Your task to perform on an android device: open device folders in google photos Image 0: 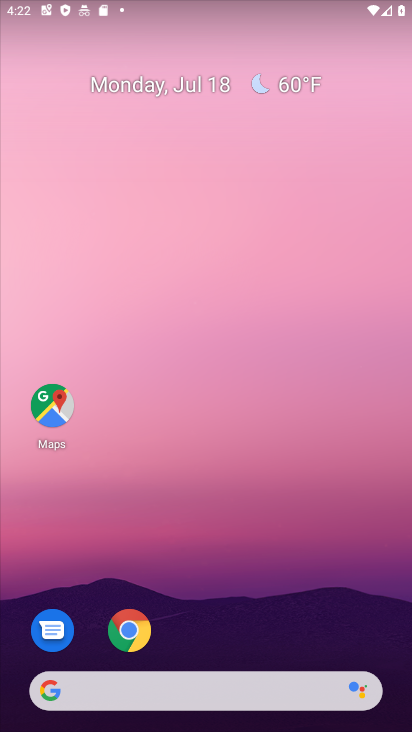
Step 0: drag from (217, 567) to (161, 194)
Your task to perform on an android device: open device folders in google photos Image 1: 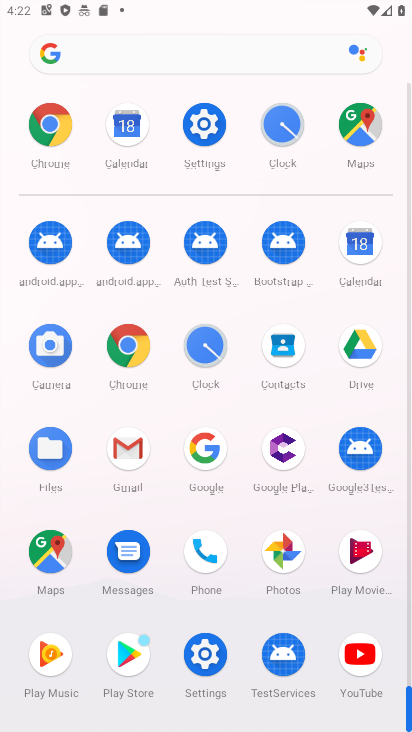
Step 1: click (197, 441)
Your task to perform on an android device: open device folders in google photos Image 2: 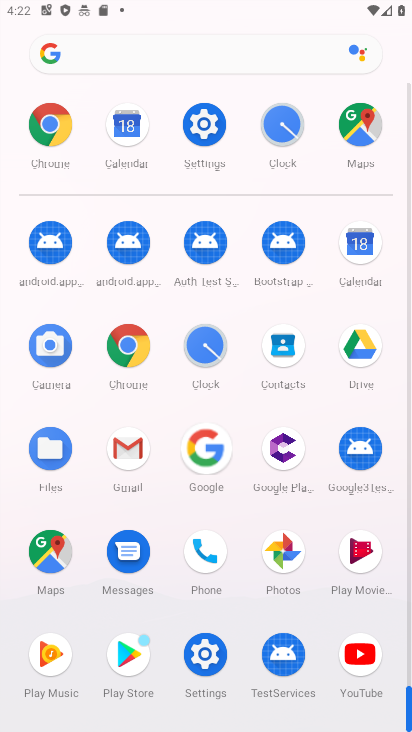
Step 2: click (197, 441)
Your task to perform on an android device: open device folders in google photos Image 3: 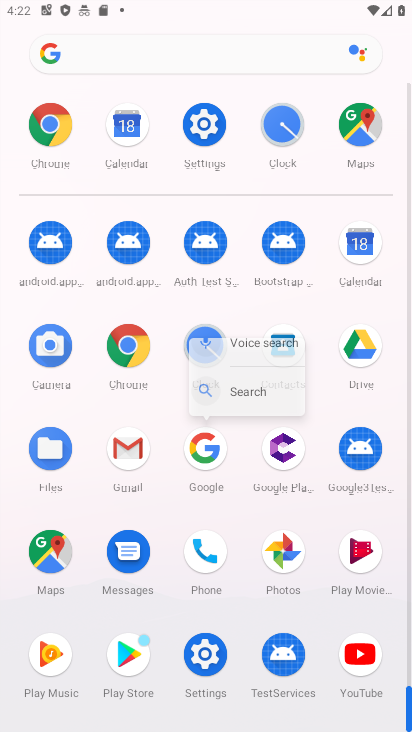
Step 3: click (197, 441)
Your task to perform on an android device: open device folders in google photos Image 4: 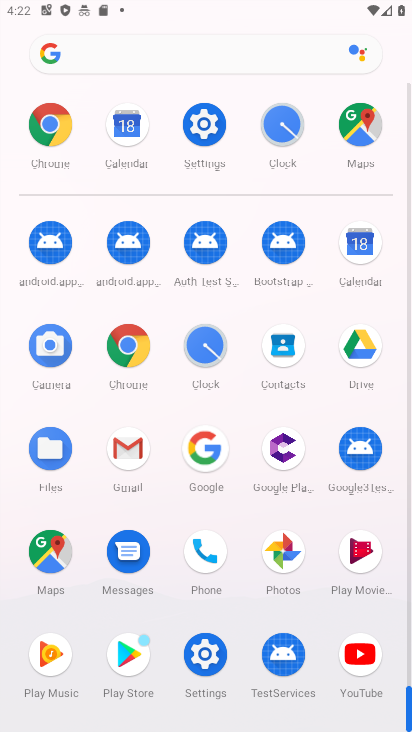
Step 4: click (197, 441)
Your task to perform on an android device: open device folders in google photos Image 5: 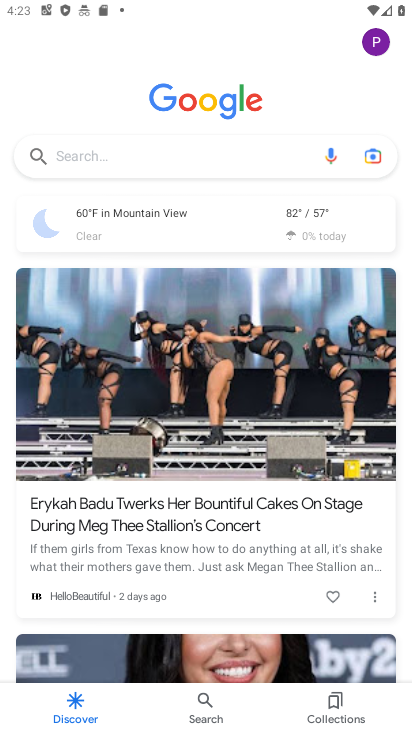
Step 5: press home button
Your task to perform on an android device: open device folders in google photos Image 6: 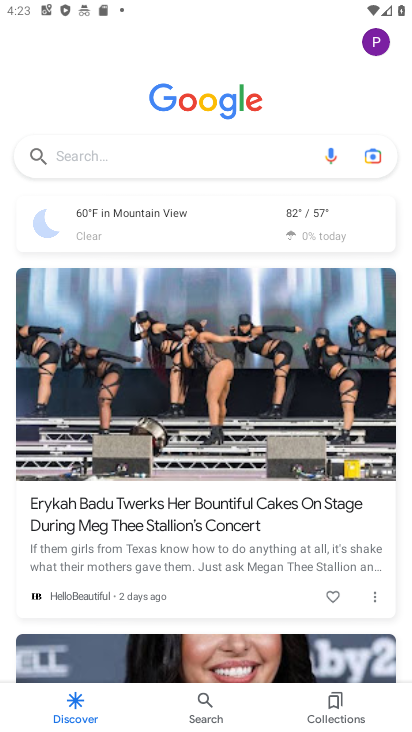
Step 6: press back button
Your task to perform on an android device: open device folders in google photos Image 7: 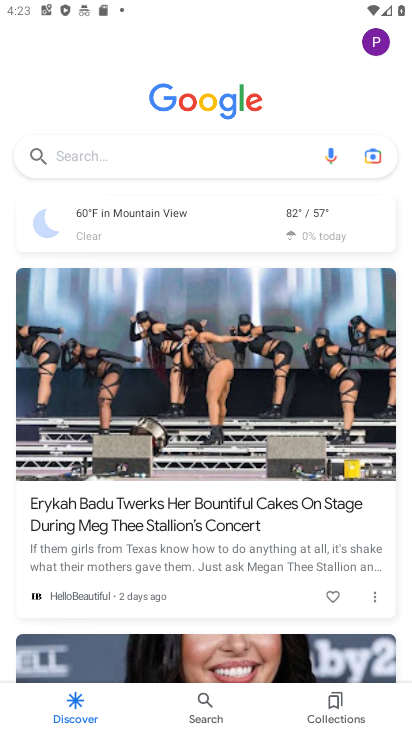
Step 7: press back button
Your task to perform on an android device: open device folders in google photos Image 8: 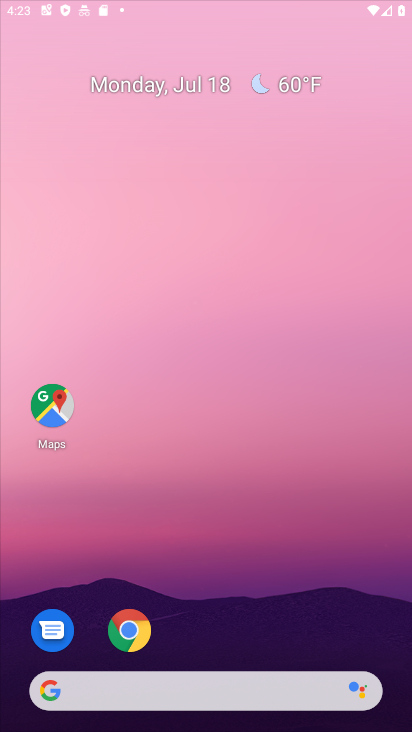
Step 8: press back button
Your task to perform on an android device: open device folders in google photos Image 9: 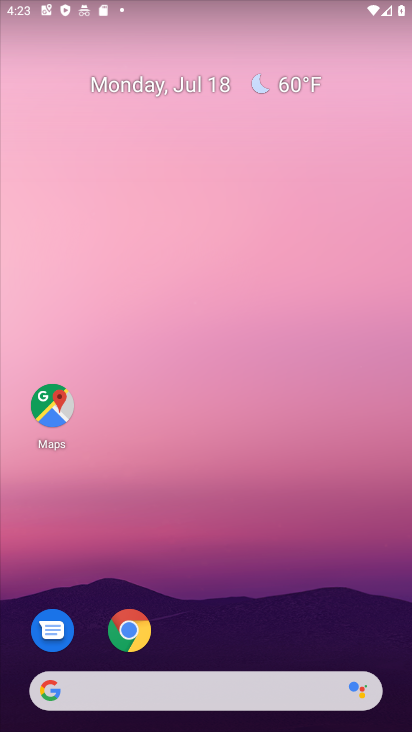
Step 9: drag from (234, 678) to (220, 222)
Your task to perform on an android device: open device folders in google photos Image 10: 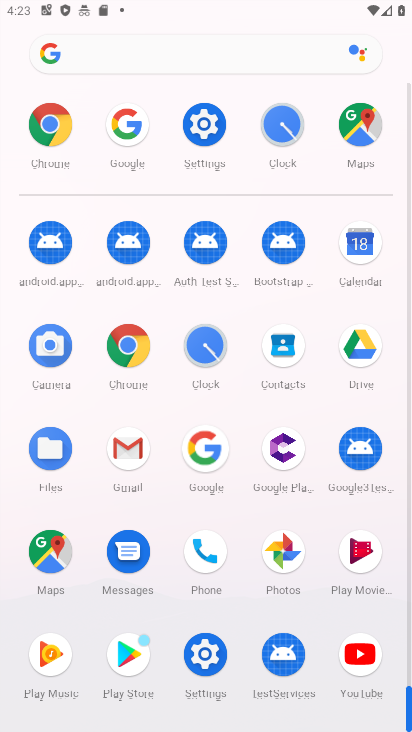
Step 10: click (279, 557)
Your task to perform on an android device: open device folders in google photos Image 11: 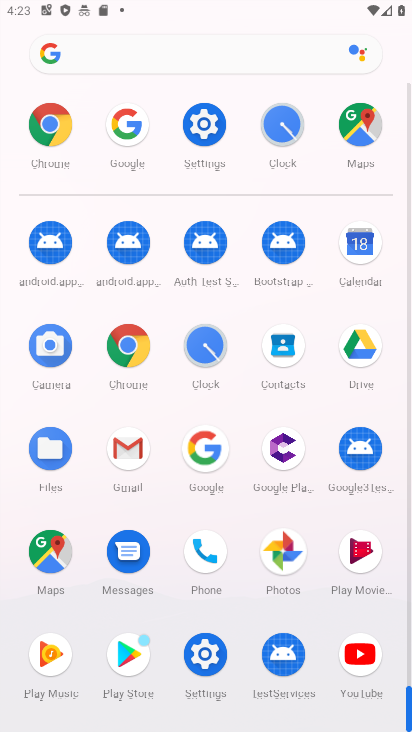
Step 11: click (279, 557)
Your task to perform on an android device: open device folders in google photos Image 12: 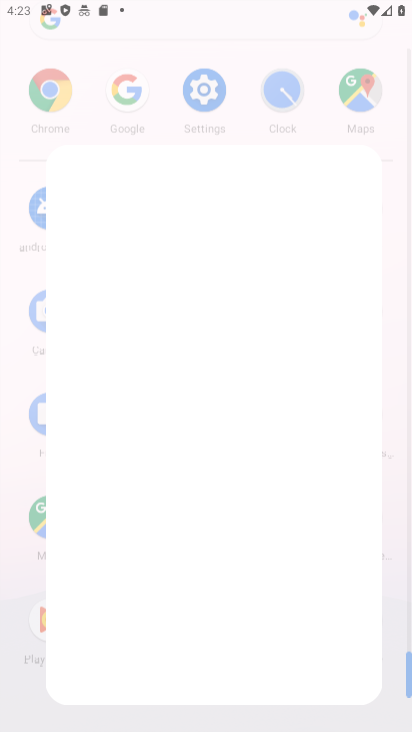
Step 12: click (279, 557)
Your task to perform on an android device: open device folders in google photos Image 13: 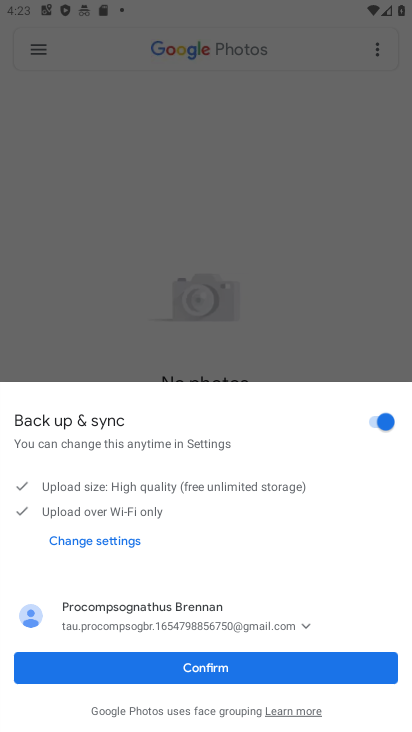
Step 13: drag from (66, 306) to (43, 122)
Your task to perform on an android device: open device folders in google photos Image 14: 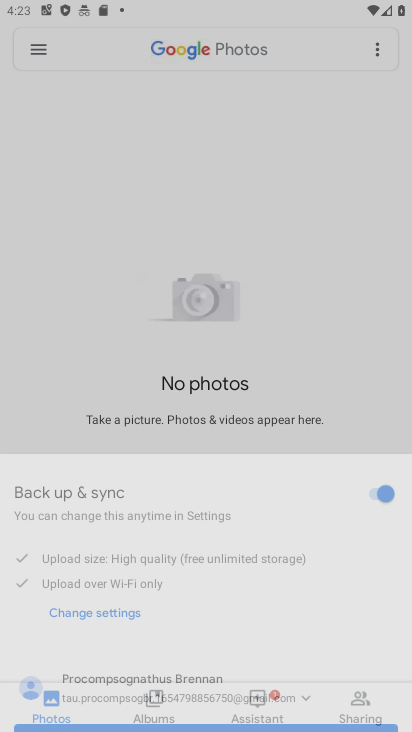
Step 14: drag from (41, 331) to (31, 54)
Your task to perform on an android device: open device folders in google photos Image 15: 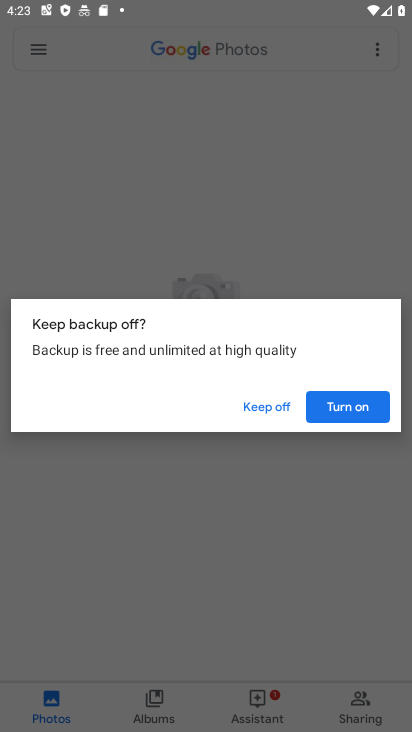
Step 15: drag from (98, 309) to (8, 168)
Your task to perform on an android device: open device folders in google photos Image 16: 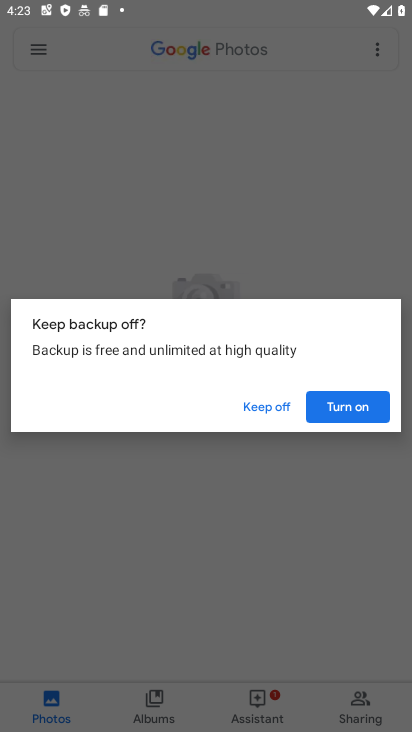
Step 16: click (272, 408)
Your task to perform on an android device: open device folders in google photos Image 17: 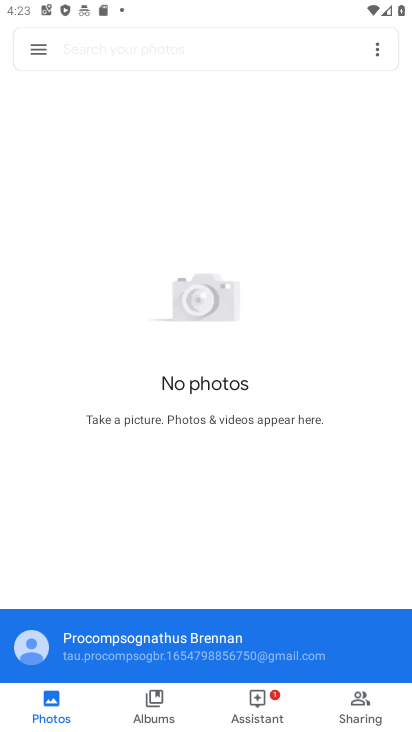
Step 17: click (36, 36)
Your task to perform on an android device: open device folders in google photos Image 18: 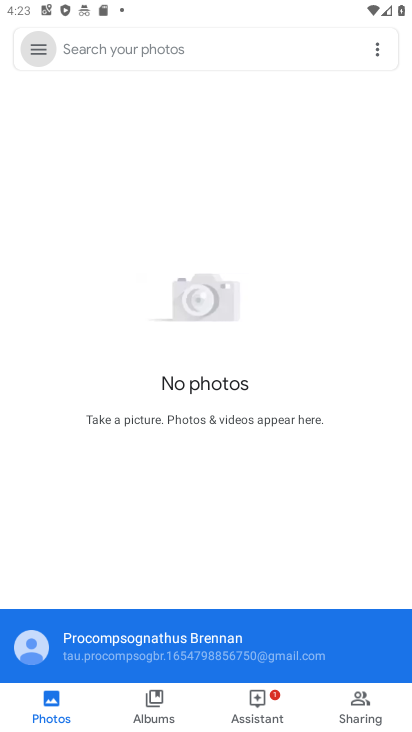
Step 18: click (43, 45)
Your task to perform on an android device: open device folders in google photos Image 19: 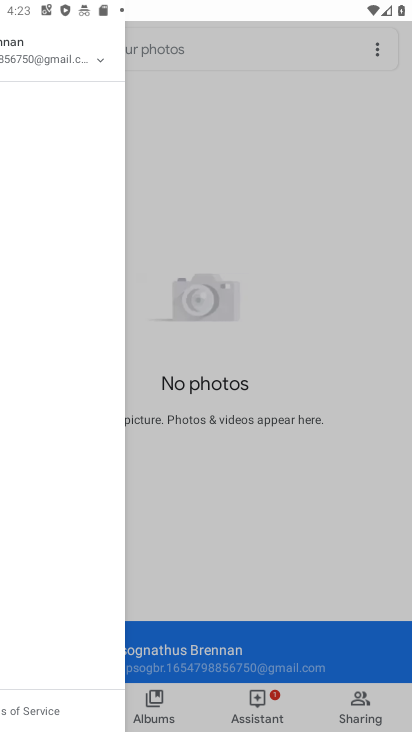
Step 19: click (43, 45)
Your task to perform on an android device: open device folders in google photos Image 20: 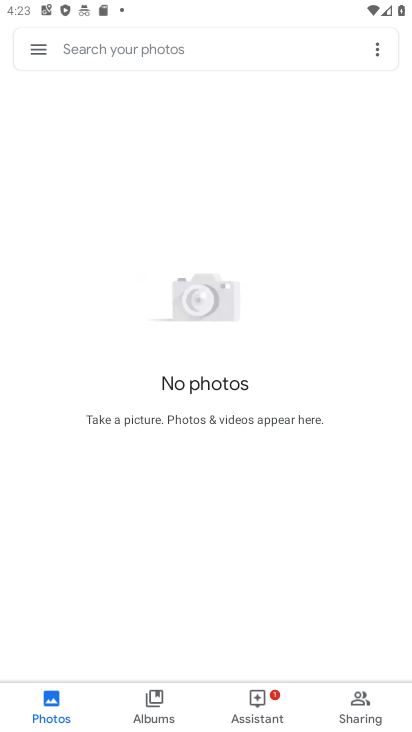
Step 20: click (23, 50)
Your task to perform on an android device: open device folders in google photos Image 21: 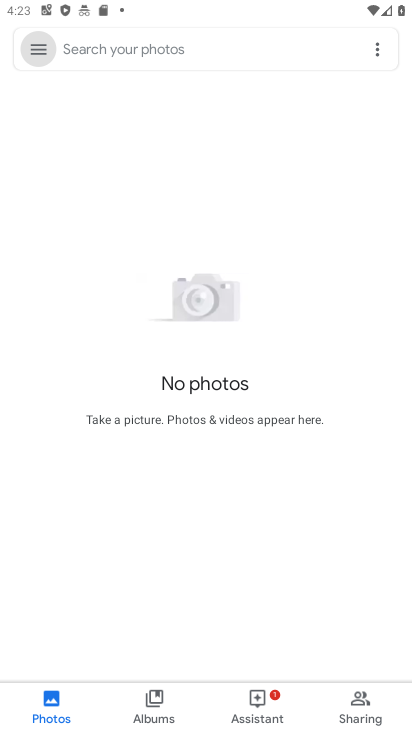
Step 21: click (23, 50)
Your task to perform on an android device: open device folders in google photos Image 22: 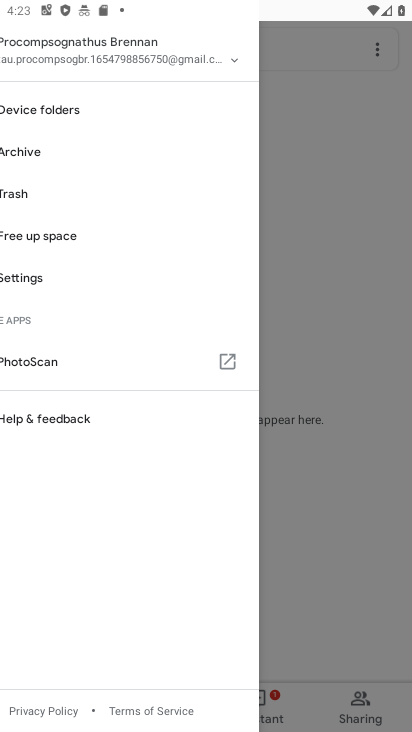
Step 22: click (23, 50)
Your task to perform on an android device: open device folders in google photos Image 23: 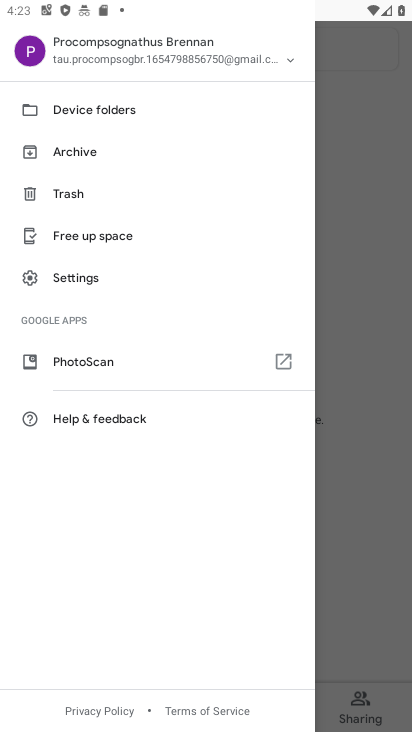
Step 23: click (78, 108)
Your task to perform on an android device: open device folders in google photos Image 24: 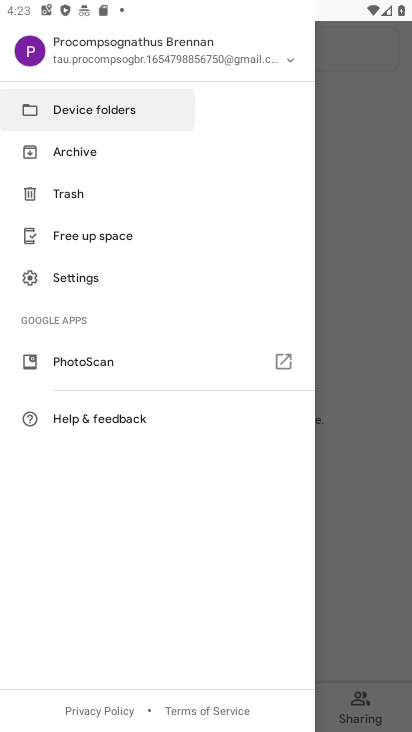
Step 24: click (80, 106)
Your task to perform on an android device: open device folders in google photos Image 25: 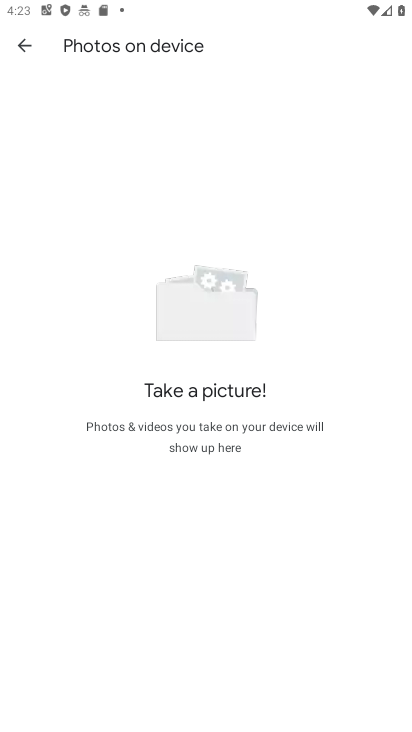
Step 25: click (20, 41)
Your task to perform on an android device: open device folders in google photos Image 26: 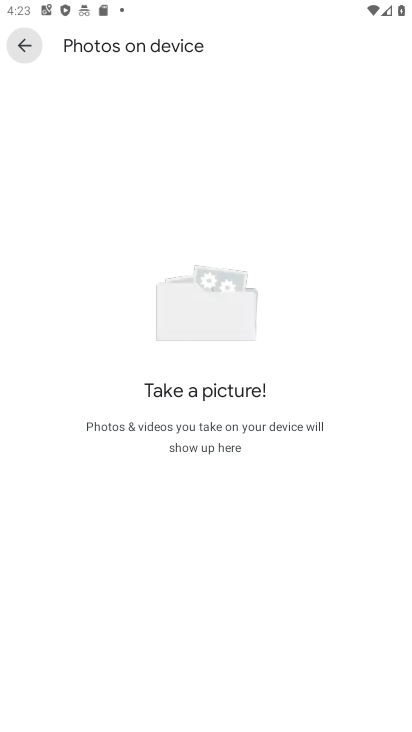
Step 26: click (21, 41)
Your task to perform on an android device: open device folders in google photos Image 27: 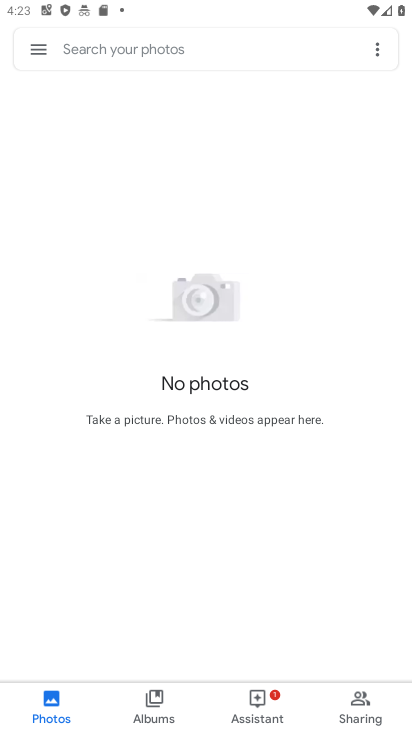
Step 27: click (45, 57)
Your task to perform on an android device: open device folders in google photos Image 28: 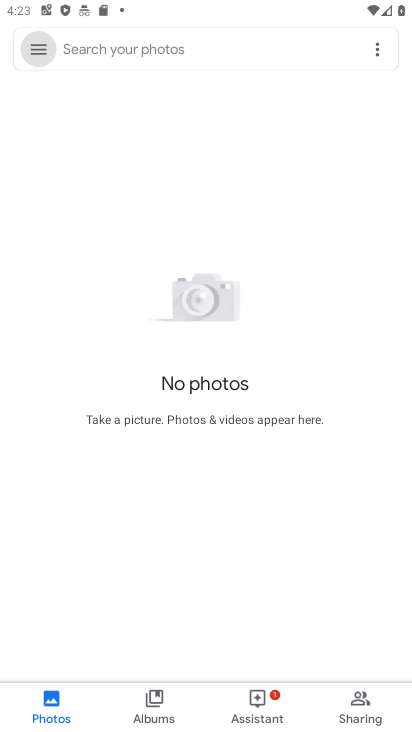
Step 28: click (46, 56)
Your task to perform on an android device: open device folders in google photos Image 29: 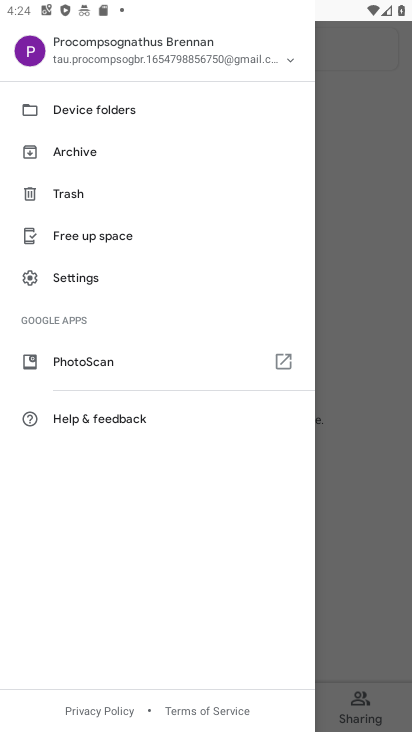
Step 29: click (79, 114)
Your task to perform on an android device: open device folders in google photos Image 30: 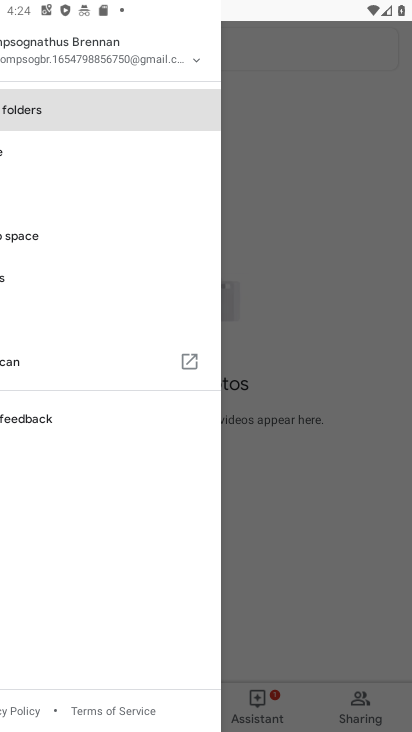
Step 30: click (79, 113)
Your task to perform on an android device: open device folders in google photos Image 31: 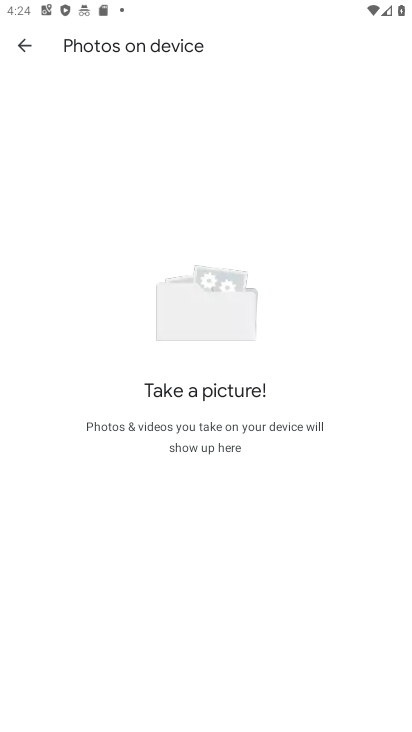
Step 31: task complete